Your task to perform on an android device: Go to Android settings Image 0: 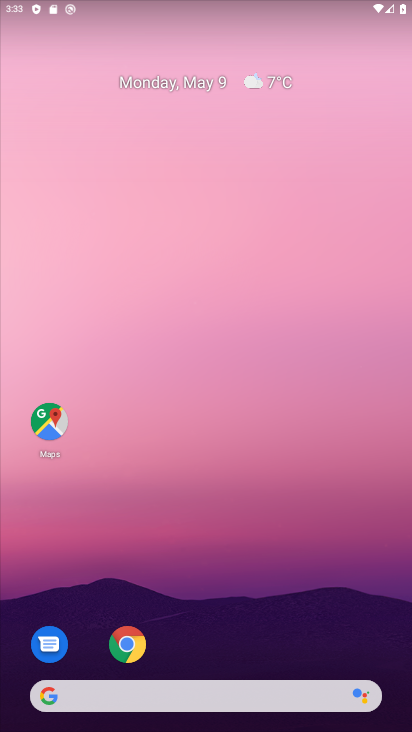
Step 0: drag from (349, 623) to (142, 17)
Your task to perform on an android device: Go to Android settings Image 1: 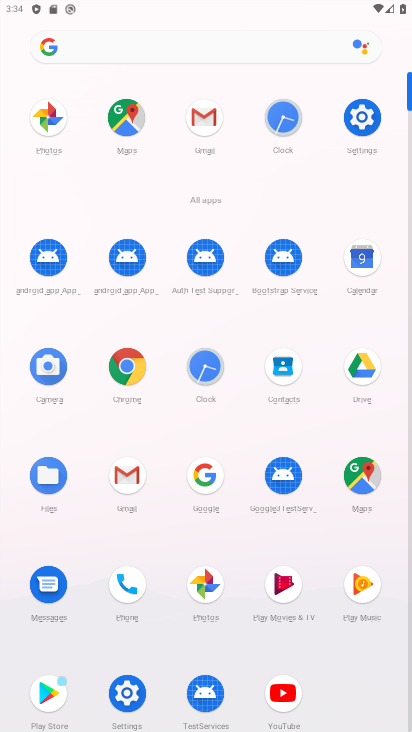
Step 1: click (352, 139)
Your task to perform on an android device: Go to Android settings Image 2: 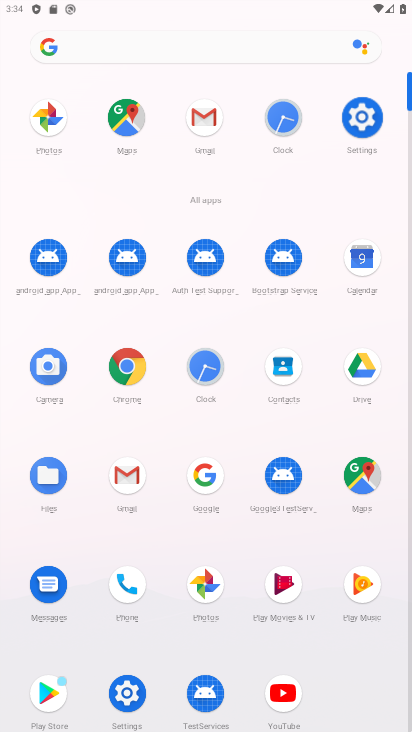
Step 2: click (352, 139)
Your task to perform on an android device: Go to Android settings Image 3: 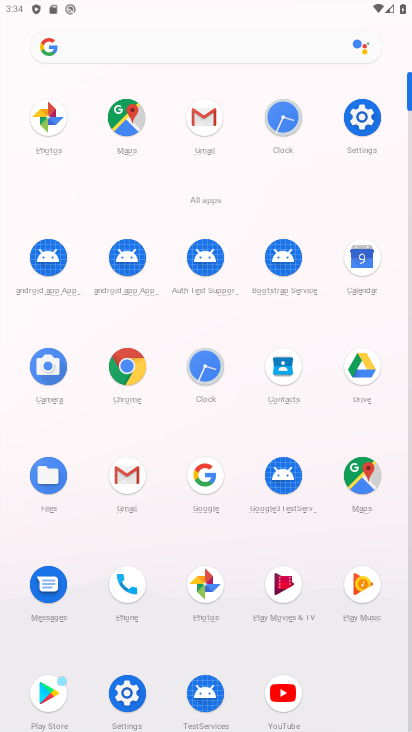
Step 3: click (353, 133)
Your task to perform on an android device: Go to Android settings Image 4: 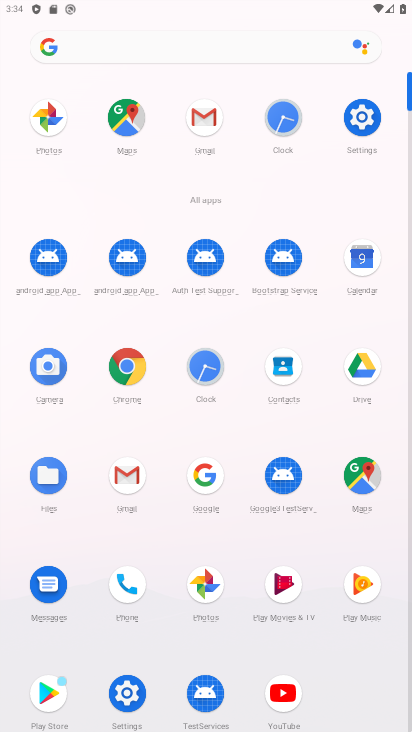
Step 4: click (353, 133)
Your task to perform on an android device: Go to Android settings Image 5: 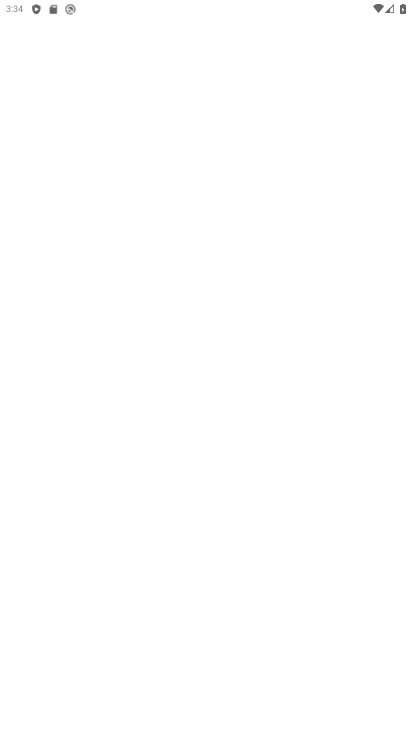
Step 5: click (354, 132)
Your task to perform on an android device: Go to Android settings Image 6: 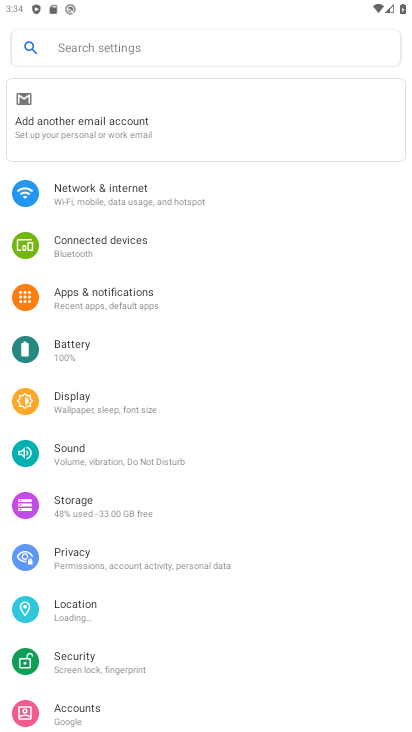
Step 6: drag from (171, 669) to (241, 170)
Your task to perform on an android device: Go to Android settings Image 7: 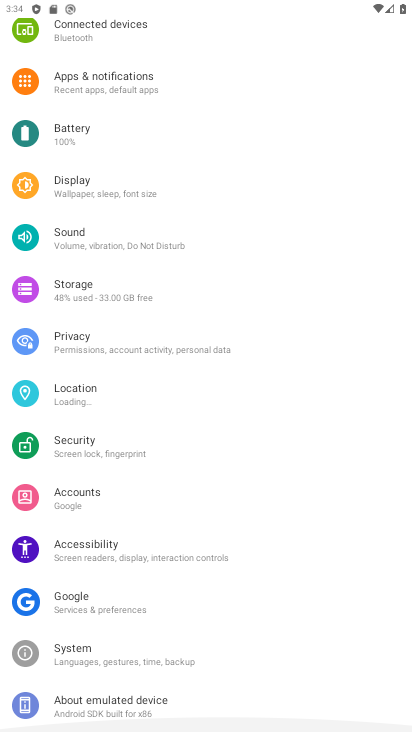
Step 7: drag from (166, 314) to (128, 114)
Your task to perform on an android device: Go to Android settings Image 8: 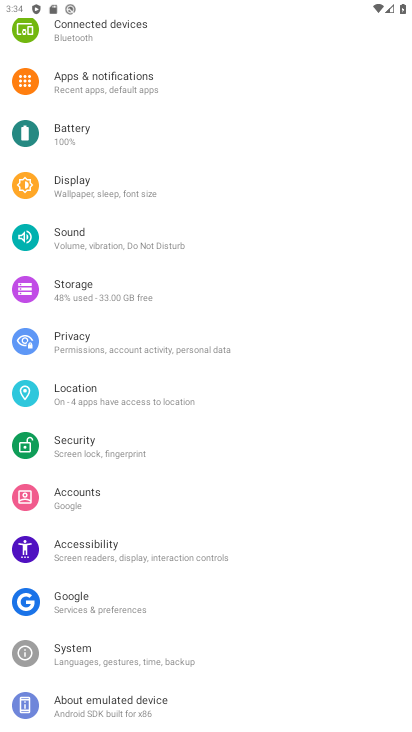
Step 8: click (89, 697)
Your task to perform on an android device: Go to Android settings Image 9: 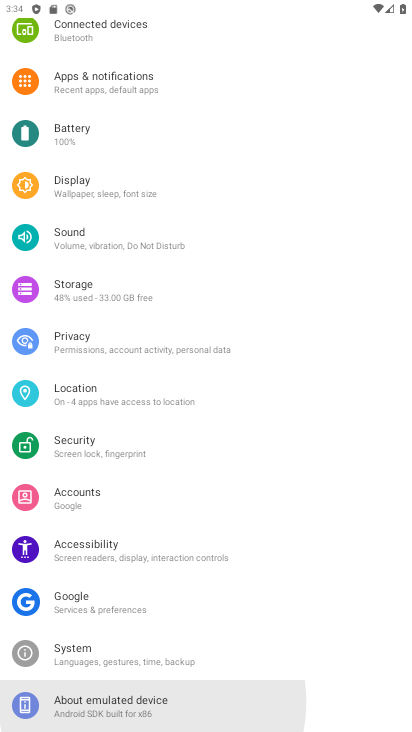
Step 9: click (89, 697)
Your task to perform on an android device: Go to Android settings Image 10: 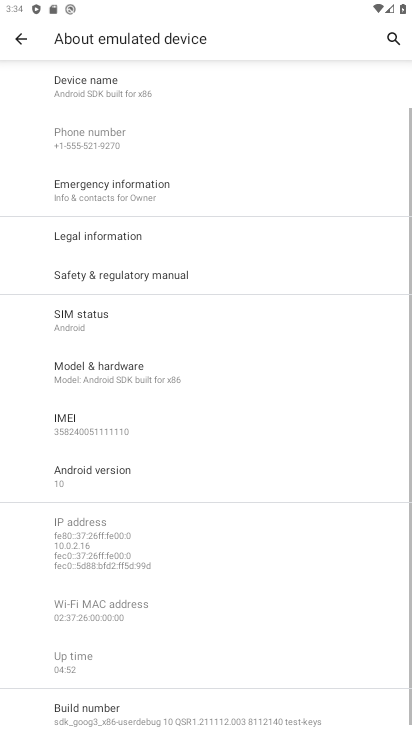
Step 10: task complete